Your task to perform on an android device: Is it going to rain today? Image 0: 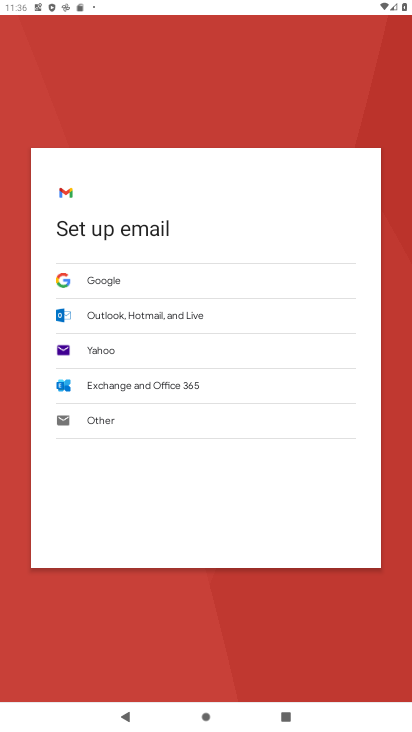
Step 0: press home button
Your task to perform on an android device: Is it going to rain today? Image 1: 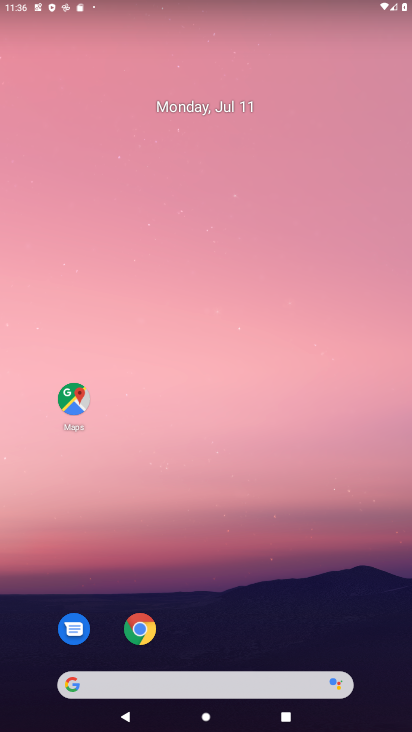
Step 1: click (213, 682)
Your task to perform on an android device: Is it going to rain today? Image 2: 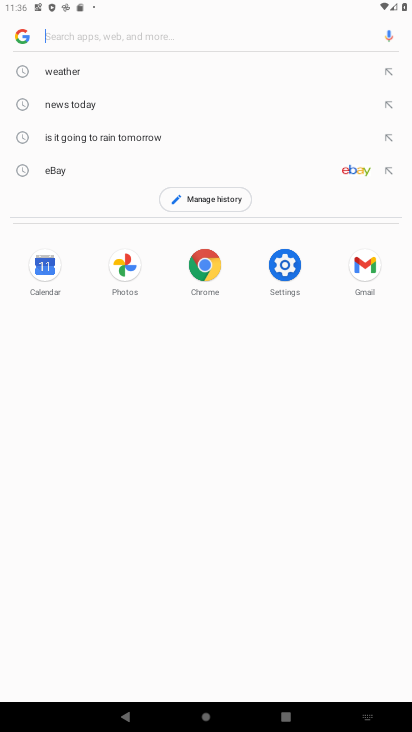
Step 2: click (89, 72)
Your task to perform on an android device: Is it going to rain today? Image 3: 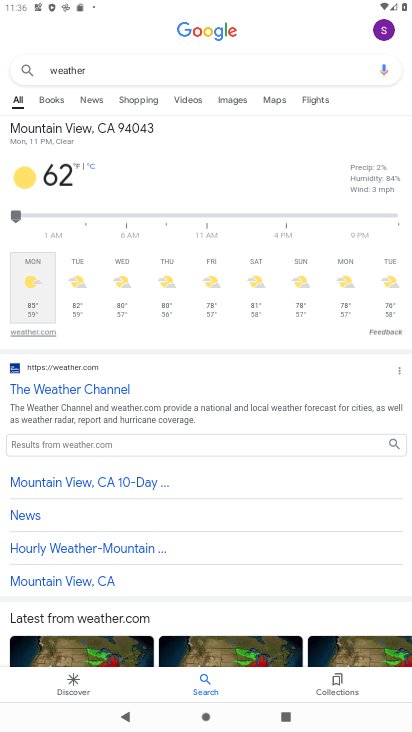
Step 3: task complete